Your task to perform on an android device: open a bookmark in the chrome app Image 0: 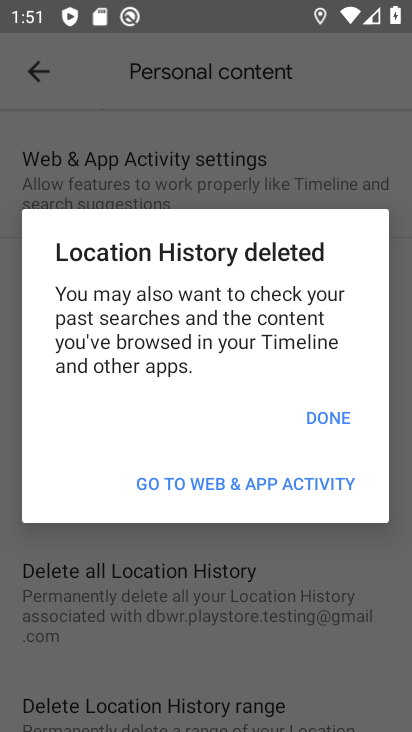
Step 0: press home button
Your task to perform on an android device: open a bookmark in the chrome app Image 1: 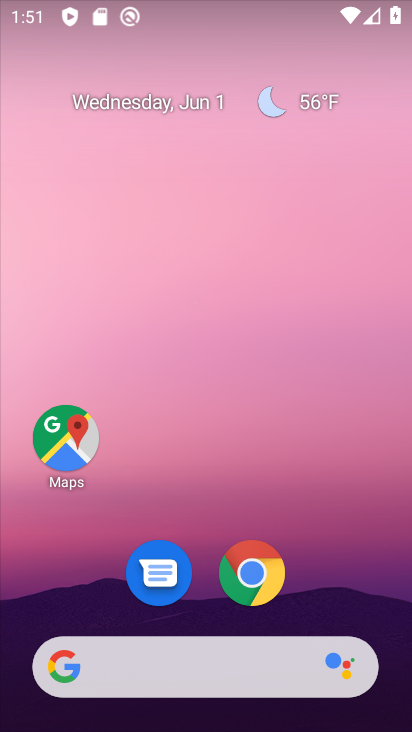
Step 1: drag from (372, 547) to (265, 12)
Your task to perform on an android device: open a bookmark in the chrome app Image 2: 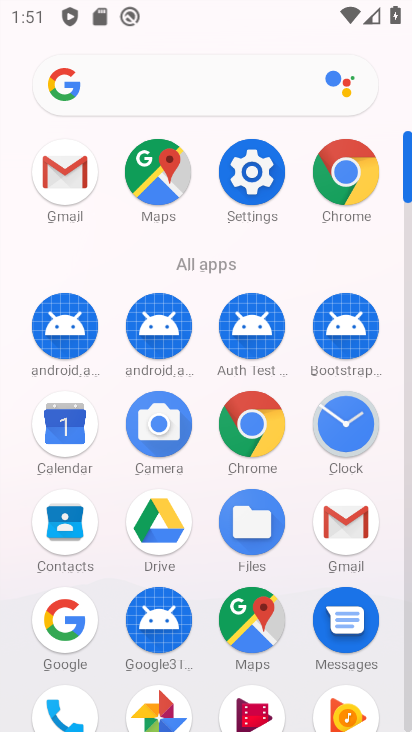
Step 2: click (354, 244)
Your task to perform on an android device: open a bookmark in the chrome app Image 3: 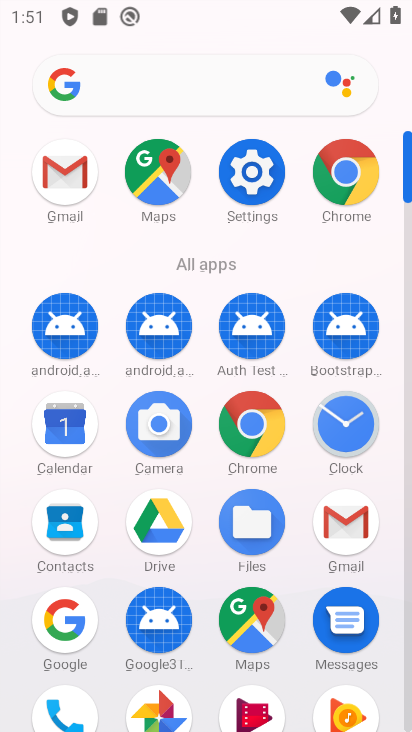
Step 3: click (342, 202)
Your task to perform on an android device: open a bookmark in the chrome app Image 4: 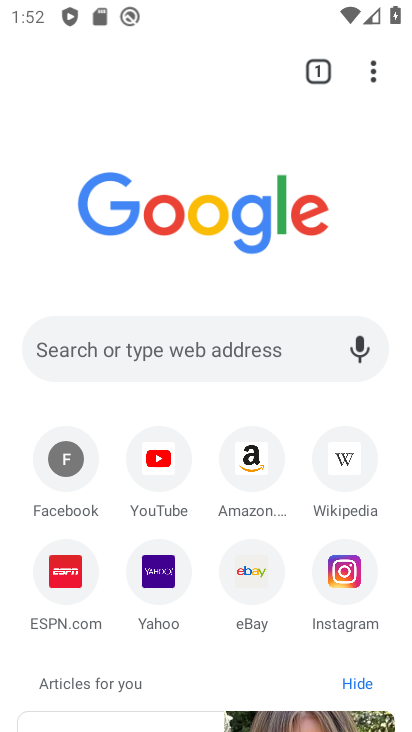
Step 4: drag from (380, 71) to (172, 267)
Your task to perform on an android device: open a bookmark in the chrome app Image 5: 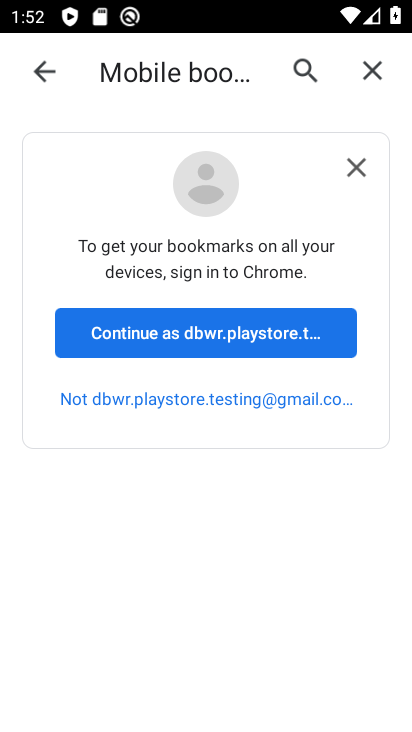
Step 5: click (256, 334)
Your task to perform on an android device: open a bookmark in the chrome app Image 6: 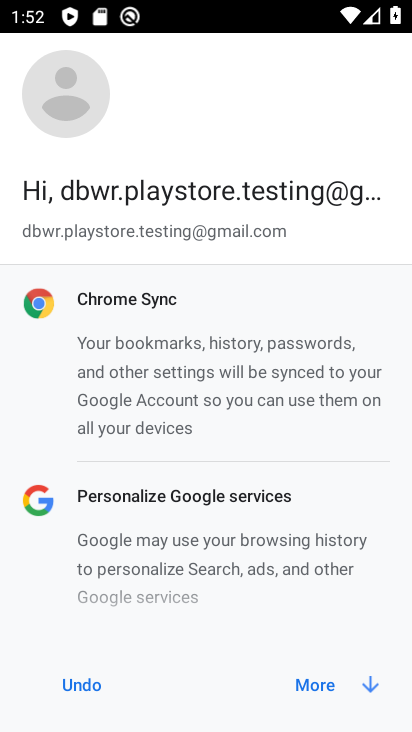
Step 6: click (343, 691)
Your task to perform on an android device: open a bookmark in the chrome app Image 7: 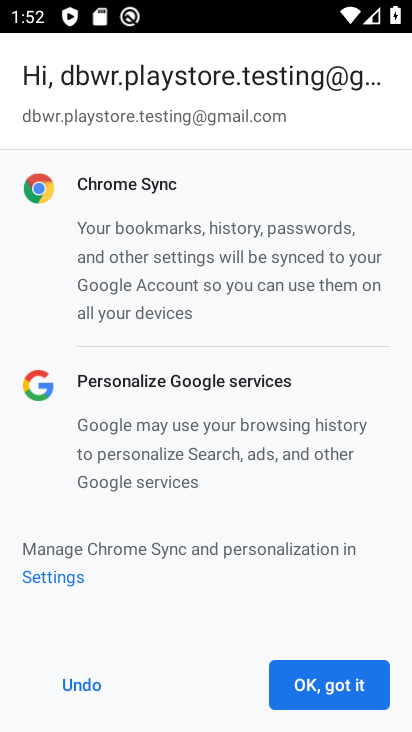
Step 7: click (343, 679)
Your task to perform on an android device: open a bookmark in the chrome app Image 8: 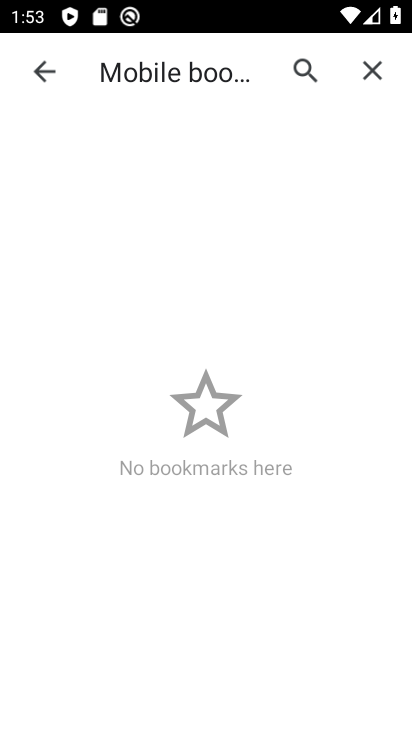
Step 8: task complete